Your task to perform on an android device: Is it going to rain today? Image 0: 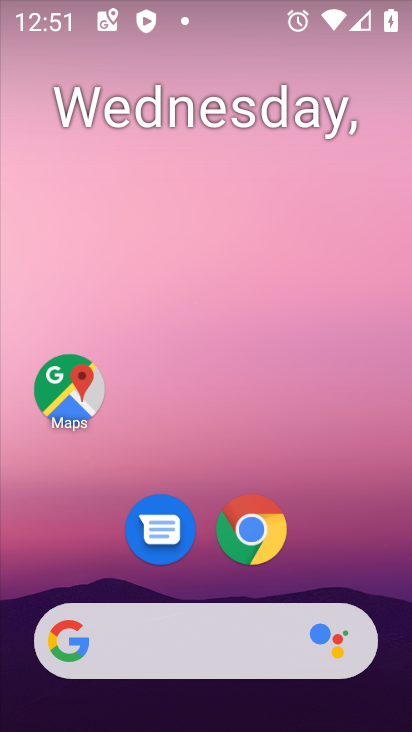
Step 0: drag from (11, 283) to (408, 308)
Your task to perform on an android device: Is it going to rain today? Image 1: 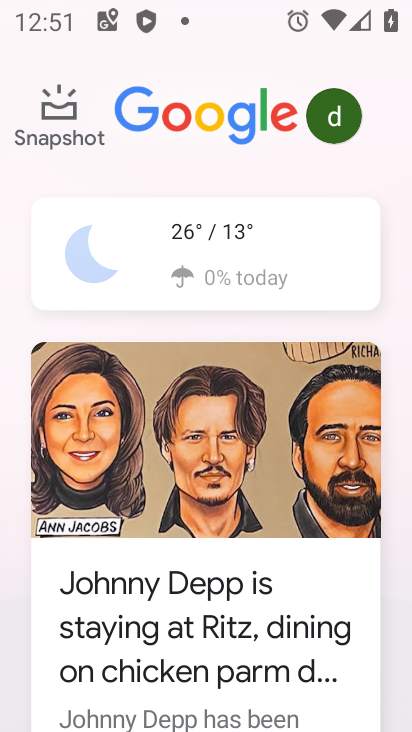
Step 1: click (241, 257)
Your task to perform on an android device: Is it going to rain today? Image 2: 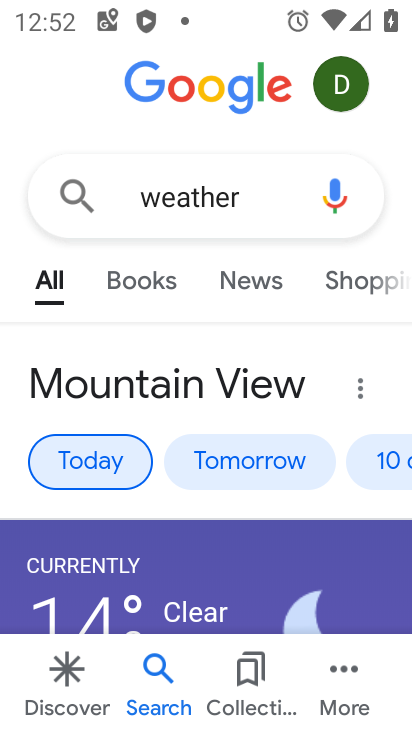
Step 2: task complete